Your task to perform on an android device: Open calendar and show me the fourth week of next month Image 0: 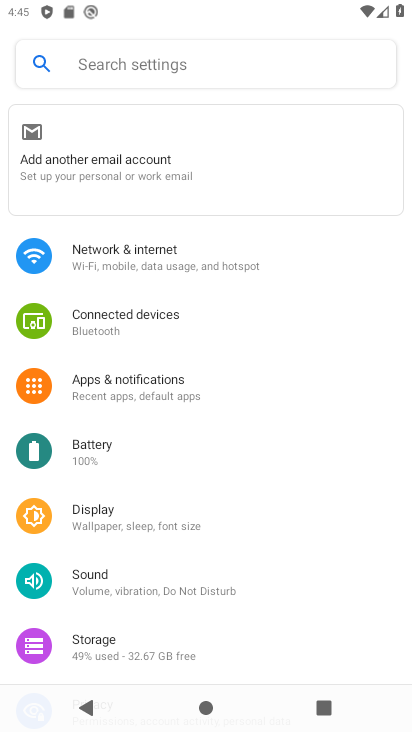
Step 0: press back button
Your task to perform on an android device: Open calendar and show me the fourth week of next month Image 1: 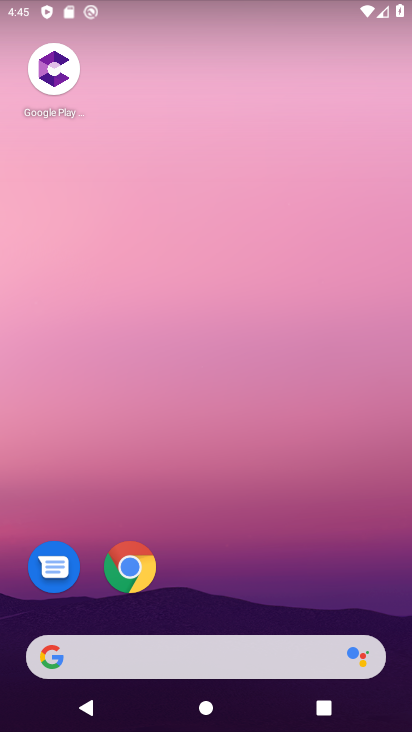
Step 1: drag from (249, 576) to (259, 27)
Your task to perform on an android device: Open calendar and show me the fourth week of next month Image 2: 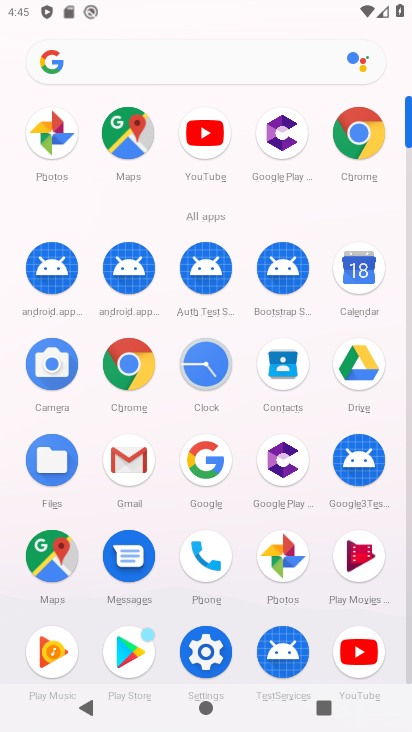
Step 2: click (354, 273)
Your task to perform on an android device: Open calendar and show me the fourth week of next month Image 3: 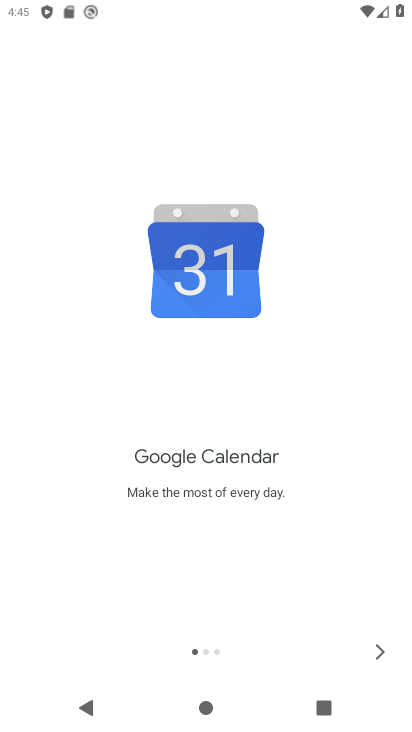
Step 3: click (381, 655)
Your task to perform on an android device: Open calendar and show me the fourth week of next month Image 4: 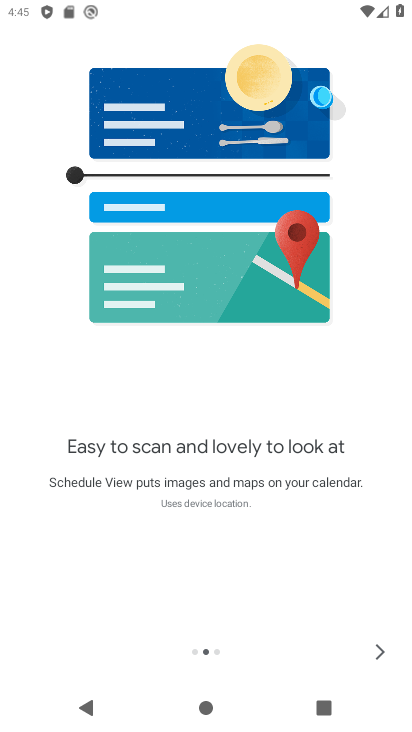
Step 4: click (379, 654)
Your task to perform on an android device: Open calendar and show me the fourth week of next month Image 5: 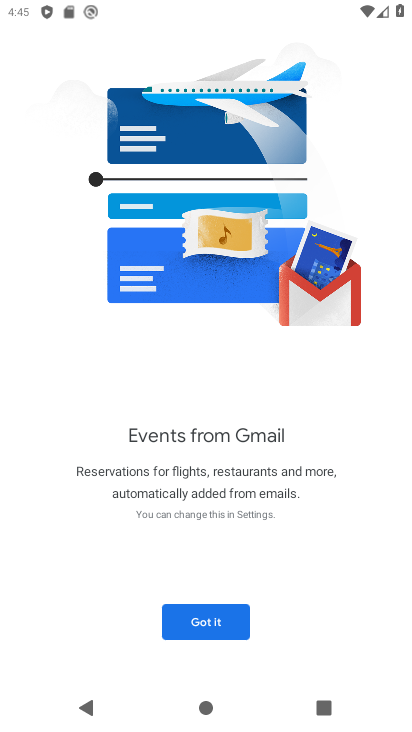
Step 5: click (225, 622)
Your task to perform on an android device: Open calendar and show me the fourth week of next month Image 6: 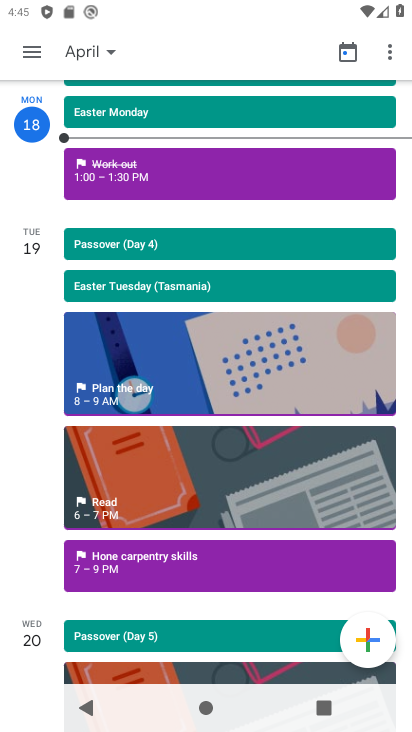
Step 6: click (71, 56)
Your task to perform on an android device: Open calendar and show me the fourth week of next month Image 7: 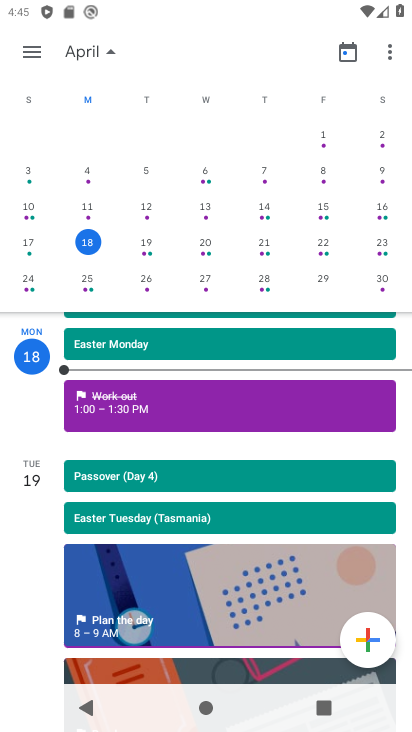
Step 7: drag from (340, 240) to (5, 235)
Your task to perform on an android device: Open calendar and show me the fourth week of next month Image 8: 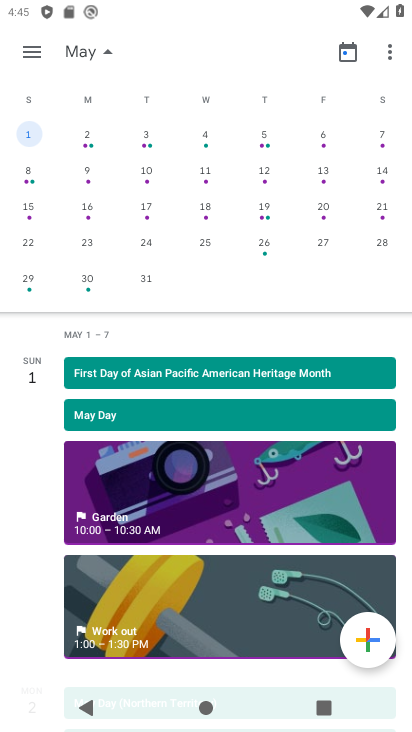
Step 8: click (39, 236)
Your task to perform on an android device: Open calendar and show me the fourth week of next month Image 9: 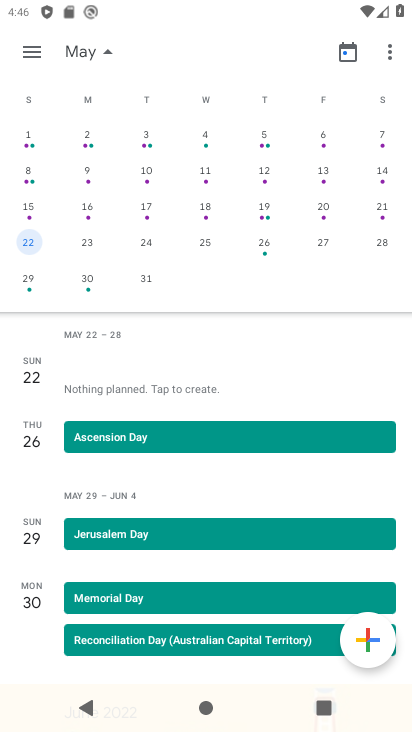
Step 9: task complete